Your task to perform on an android device: turn pop-ups off in chrome Image 0: 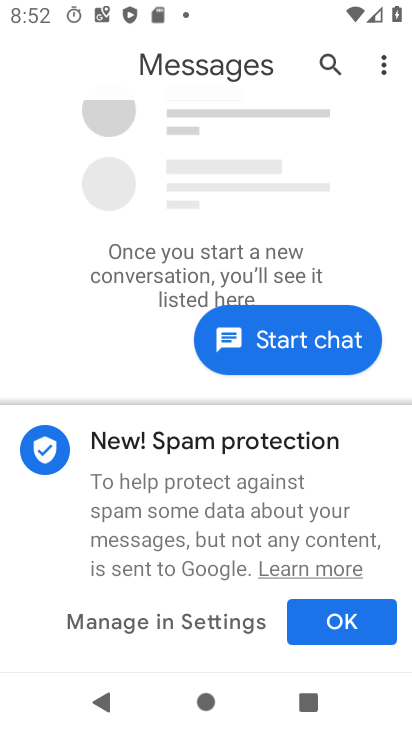
Step 0: press home button
Your task to perform on an android device: turn pop-ups off in chrome Image 1: 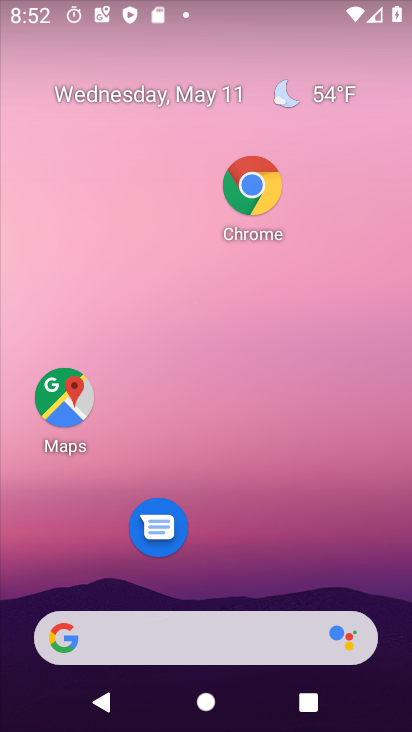
Step 1: click (253, 186)
Your task to perform on an android device: turn pop-ups off in chrome Image 2: 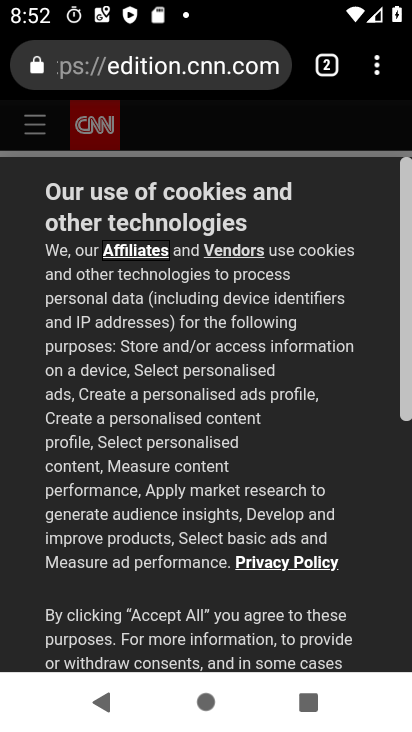
Step 2: click (365, 61)
Your task to perform on an android device: turn pop-ups off in chrome Image 3: 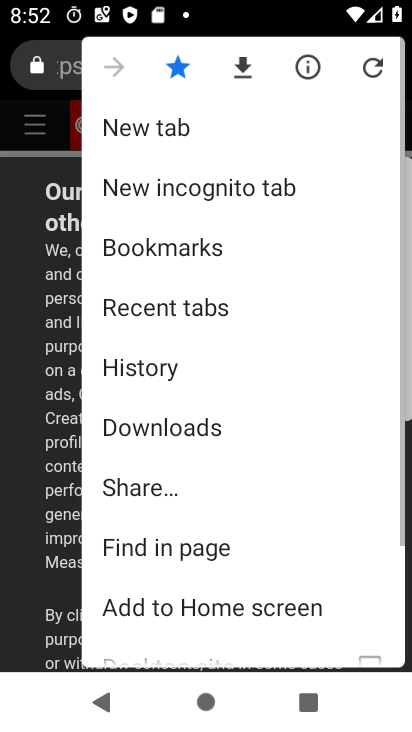
Step 3: drag from (212, 579) to (207, 186)
Your task to perform on an android device: turn pop-ups off in chrome Image 4: 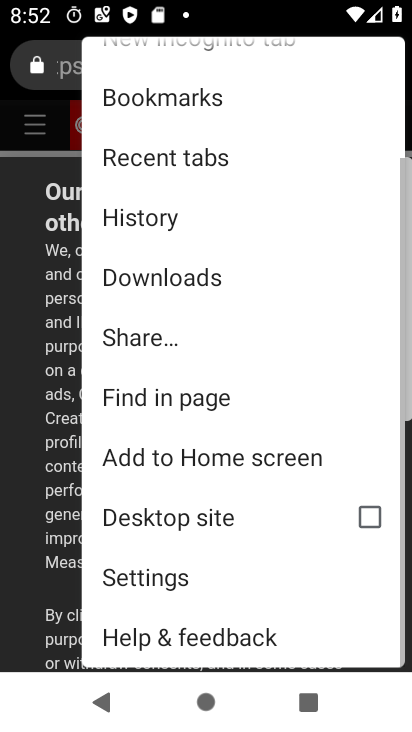
Step 4: click (171, 574)
Your task to perform on an android device: turn pop-ups off in chrome Image 5: 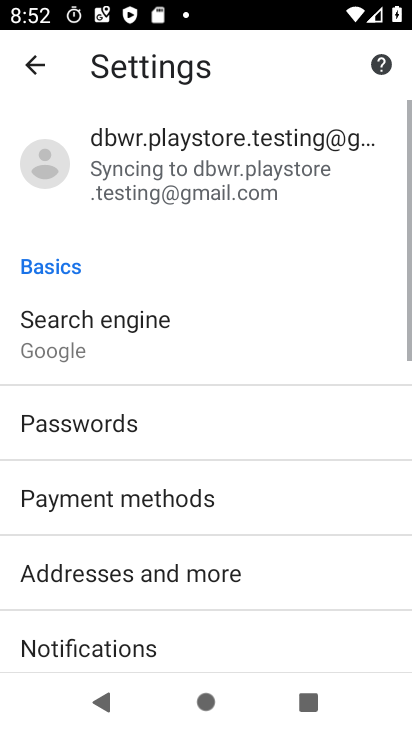
Step 5: drag from (274, 589) to (261, 116)
Your task to perform on an android device: turn pop-ups off in chrome Image 6: 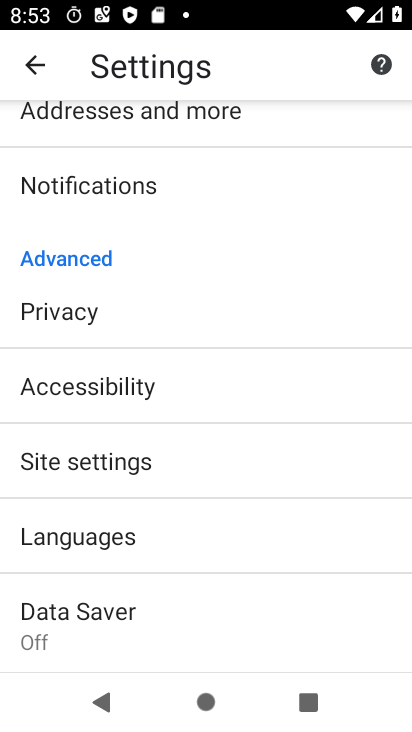
Step 6: click (80, 459)
Your task to perform on an android device: turn pop-ups off in chrome Image 7: 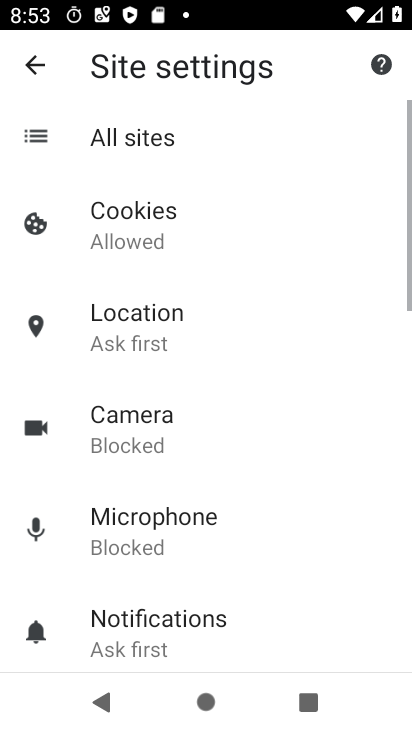
Step 7: drag from (286, 574) to (262, 109)
Your task to perform on an android device: turn pop-ups off in chrome Image 8: 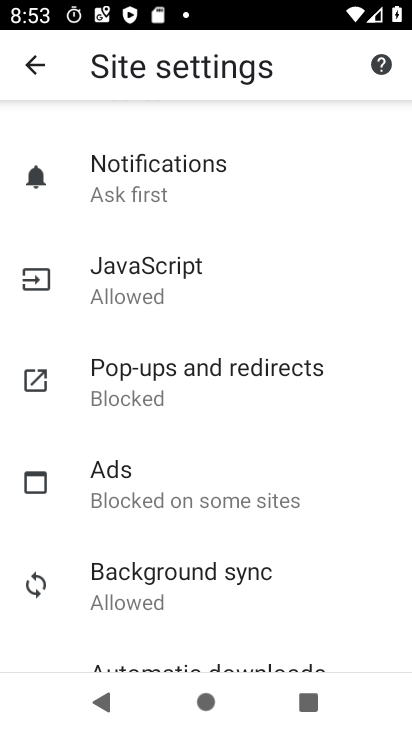
Step 8: click (167, 392)
Your task to perform on an android device: turn pop-ups off in chrome Image 9: 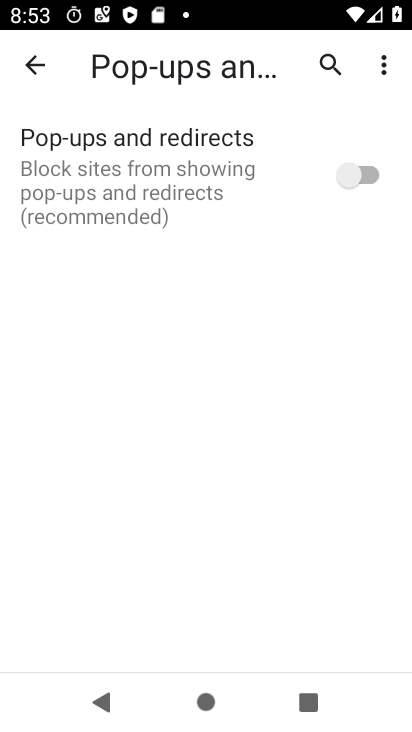
Step 9: task complete